Your task to perform on an android device: add a contact Image 0: 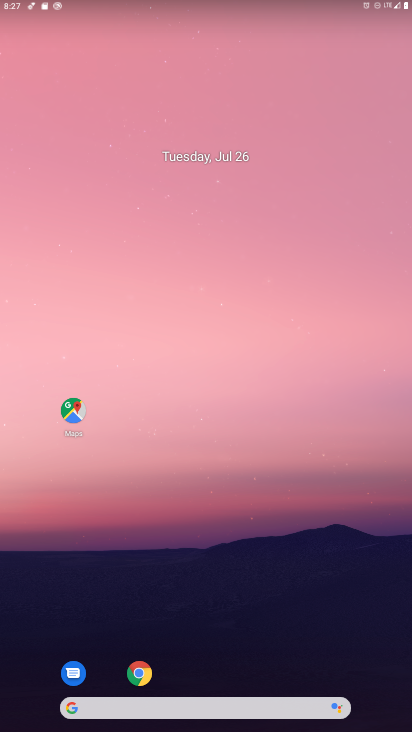
Step 0: drag from (290, 635) to (215, 23)
Your task to perform on an android device: add a contact Image 1: 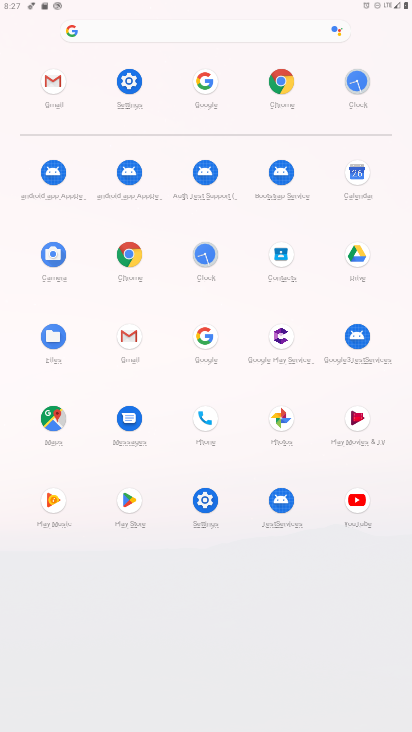
Step 1: click (276, 251)
Your task to perform on an android device: add a contact Image 2: 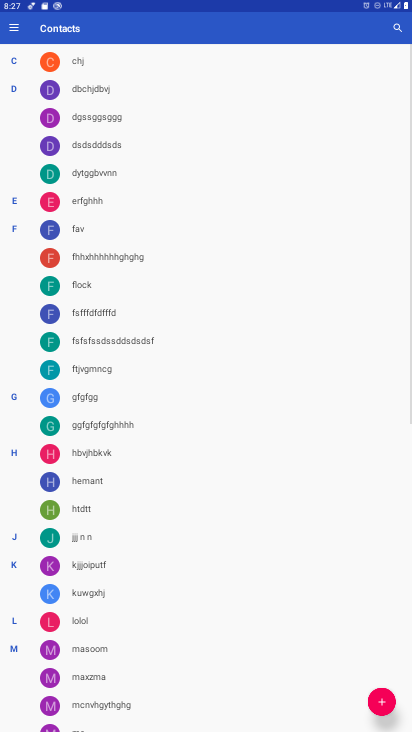
Step 2: click (377, 707)
Your task to perform on an android device: add a contact Image 3: 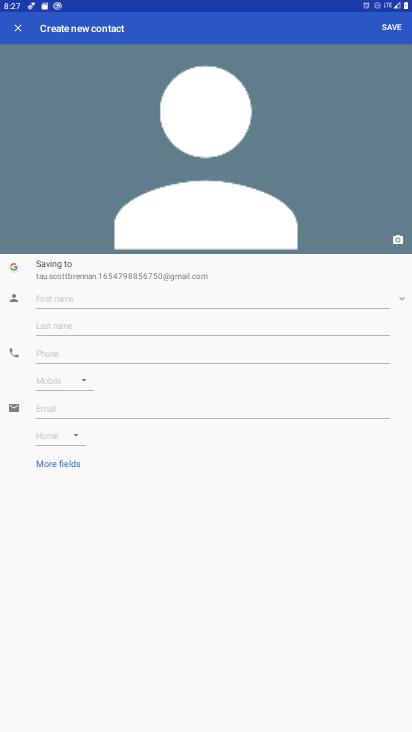
Step 3: click (97, 290)
Your task to perform on an android device: add a contact Image 4: 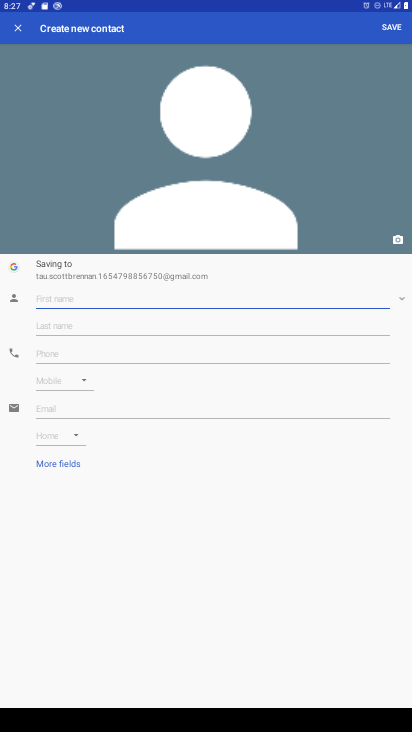
Step 4: type "rahul"
Your task to perform on an android device: add a contact Image 5: 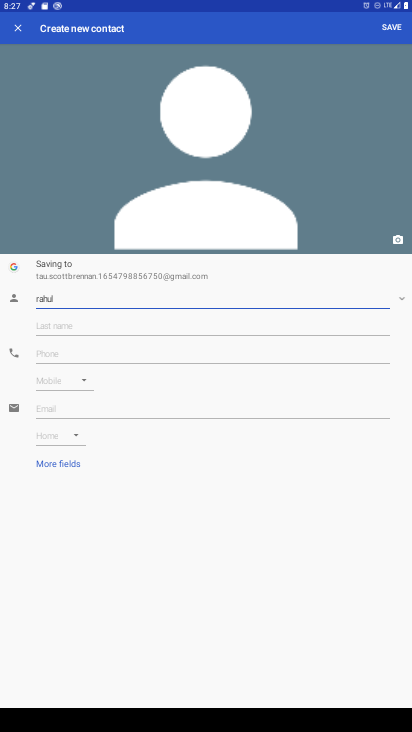
Step 5: click (393, 27)
Your task to perform on an android device: add a contact Image 6: 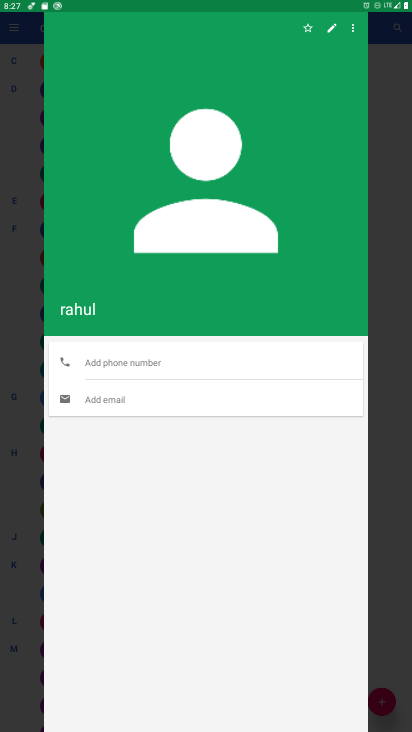
Step 6: task complete